Your task to perform on an android device: Open accessibility settings Image 0: 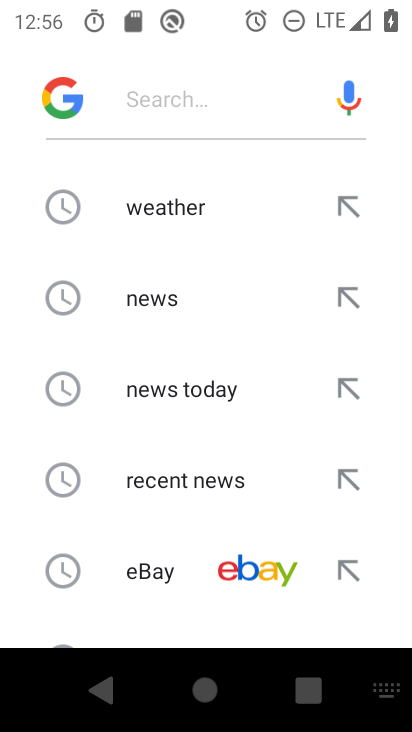
Step 0: press home button
Your task to perform on an android device: Open accessibility settings Image 1: 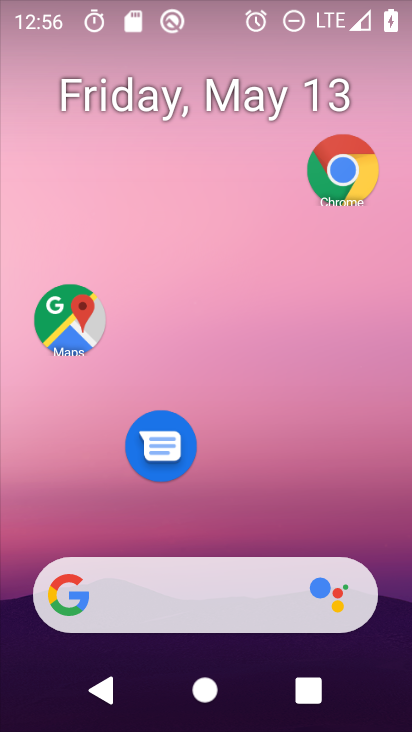
Step 1: drag from (267, 627) to (318, 0)
Your task to perform on an android device: Open accessibility settings Image 2: 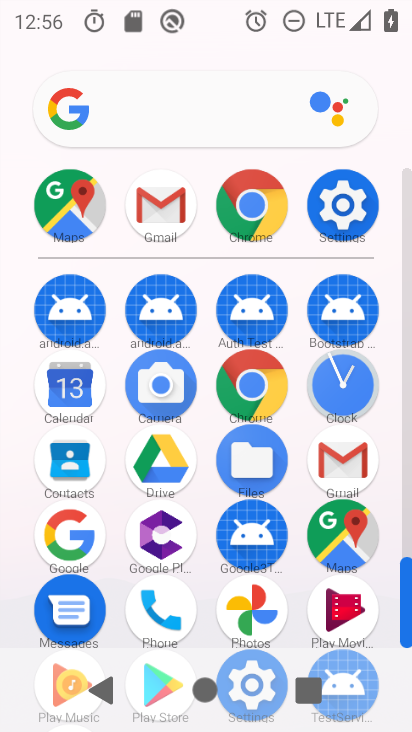
Step 2: click (335, 190)
Your task to perform on an android device: Open accessibility settings Image 3: 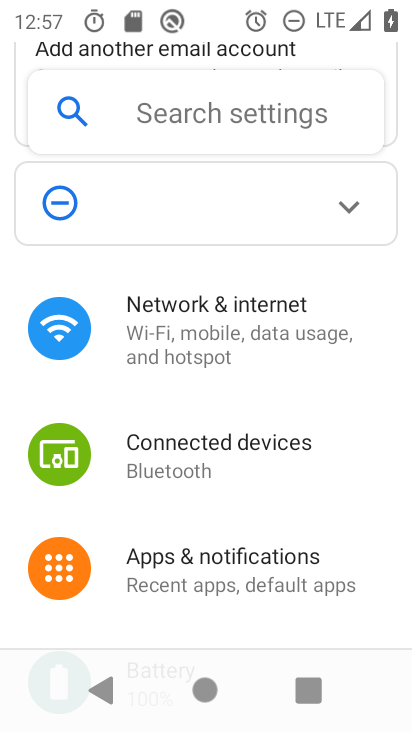
Step 3: drag from (263, 616) to (323, 63)
Your task to perform on an android device: Open accessibility settings Image 4: 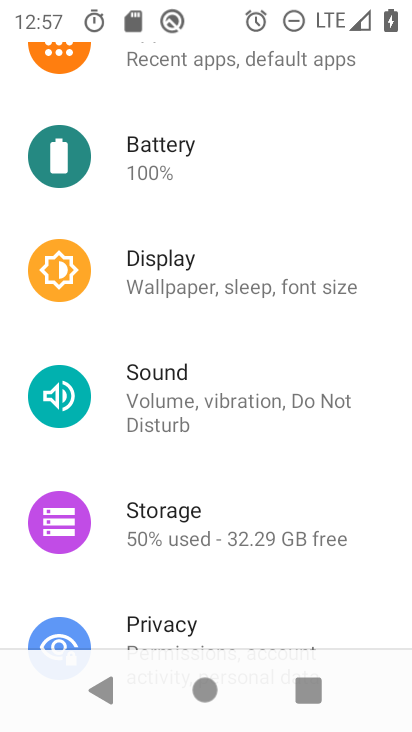
Step 4: drag from (260, 605) to (334, 164)
Your task to perform on an android device: Open accessibility settings Image 5: 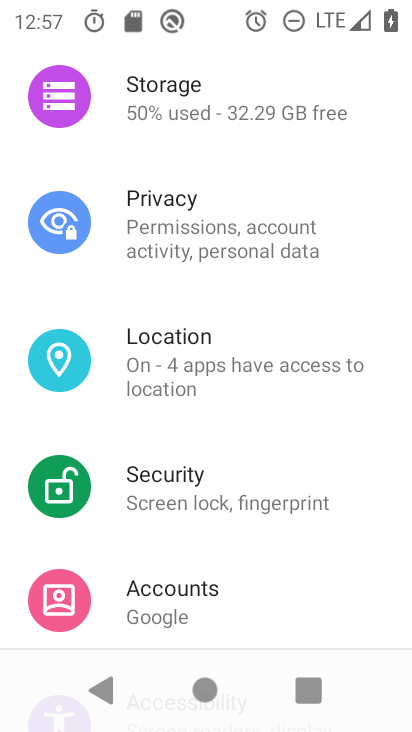
Step 5: drag from (236, 629) to (265, 213)
Your task to perform on an android device: Open accessibility settings Image 6: 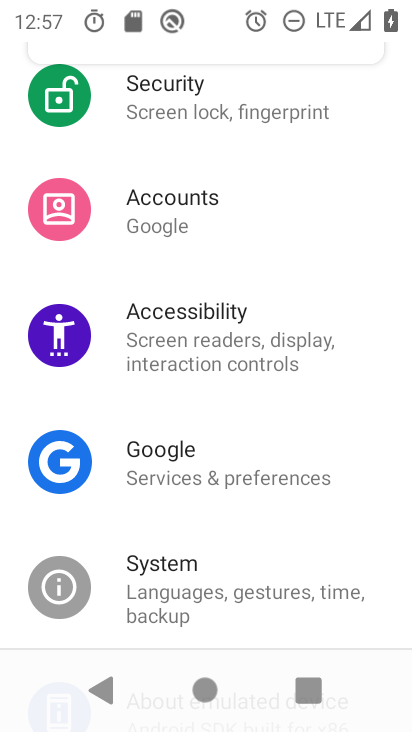
Step 6: click (228, 321)
Your task to perform on an android device: Open accessibility settings Image 7: 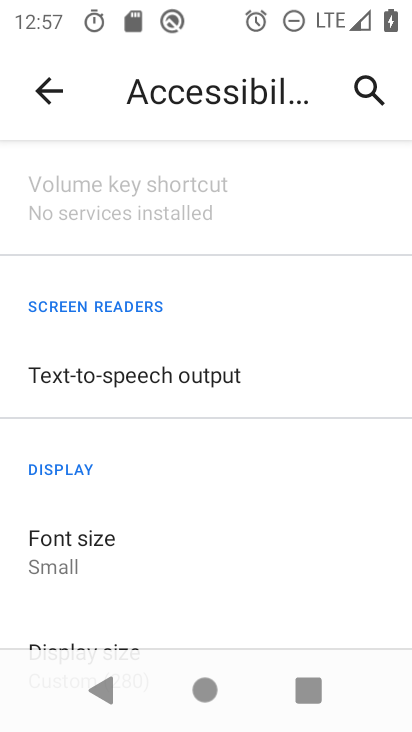
Step 7: task complete